Your task to perform on an android device: turn off notifications in google photos Image 0: 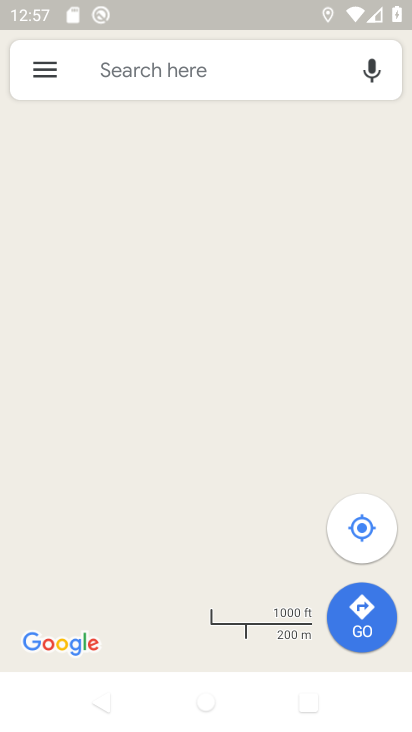
Step 0: press home button
Your task to perform on an android device: turn off notifications in google photos Image 1: 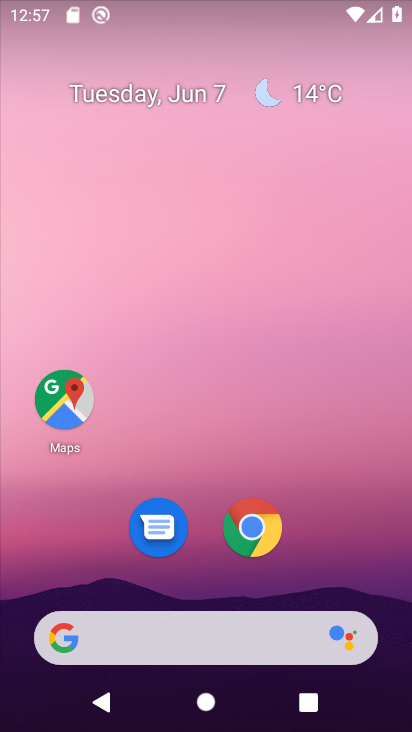
Step 1: drag from (307, 571) to (318, 13)
Your task to perform on an android device: turn off notifications in google photos Image 2: 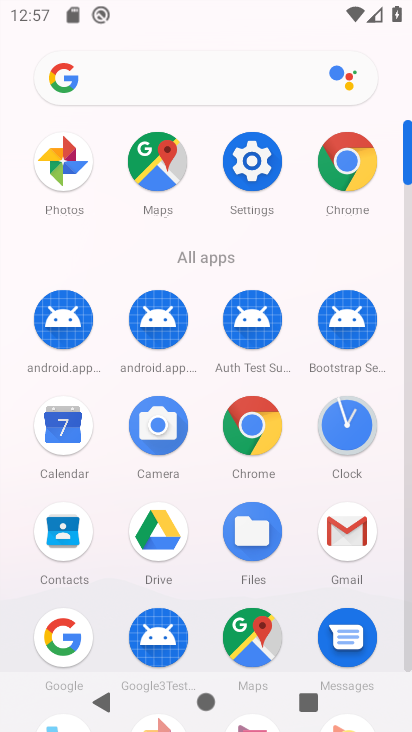
Step 2: click (64, 163)
Your task to perform on an android device: turn off notifications in google photos Image 3: 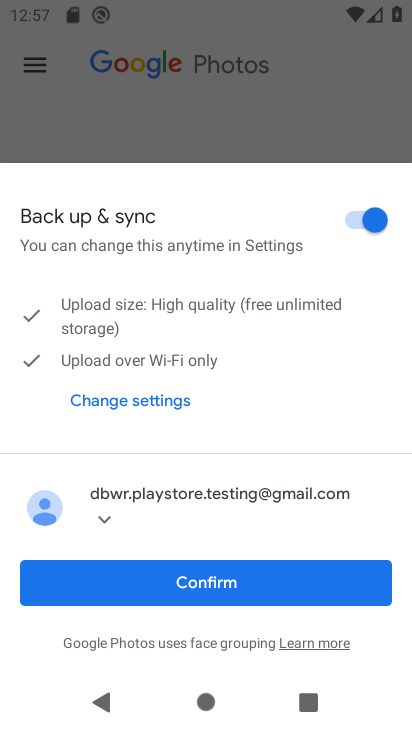
Step 3: click (272, 582)
Your task to perform on an android device: turn off notifications in google photos Image 4: 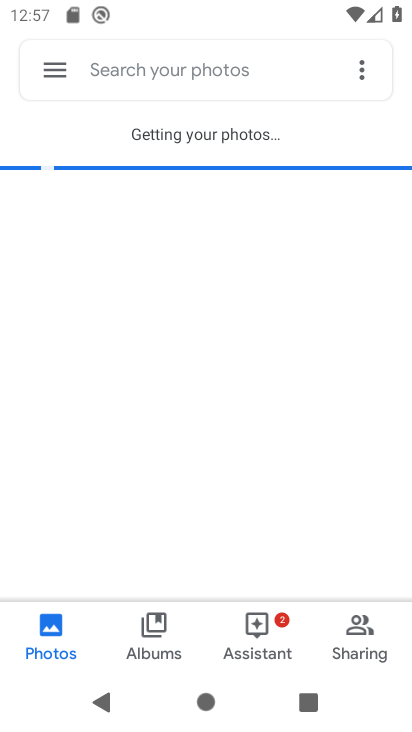
Step 4: click (42, 64)
Your task to perform on an android device: turn off notifications in google photos Image 5: 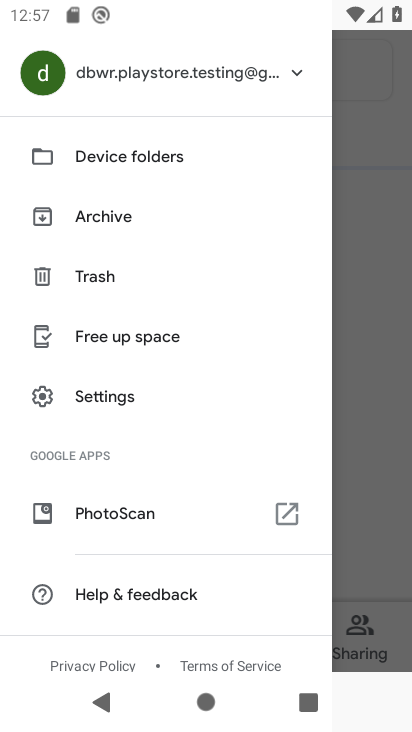
Step 5: click (93, 389)
Your task to perform on an android device: turn off notifications in google photos Image 6: 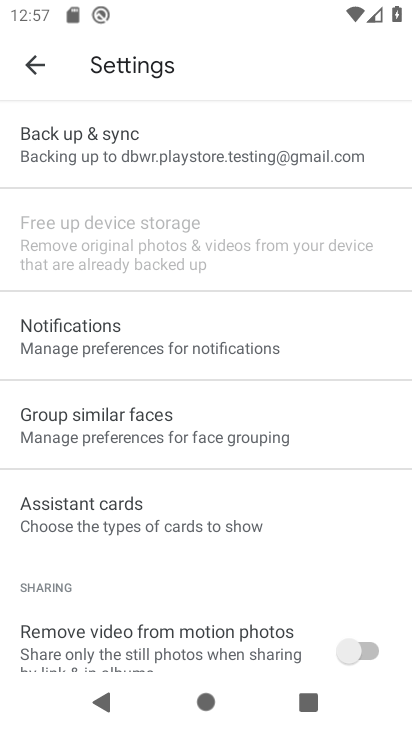
Step 6: click (116, 353)
Your task to perform on an android device: turn off notifications in google photos Image 7: 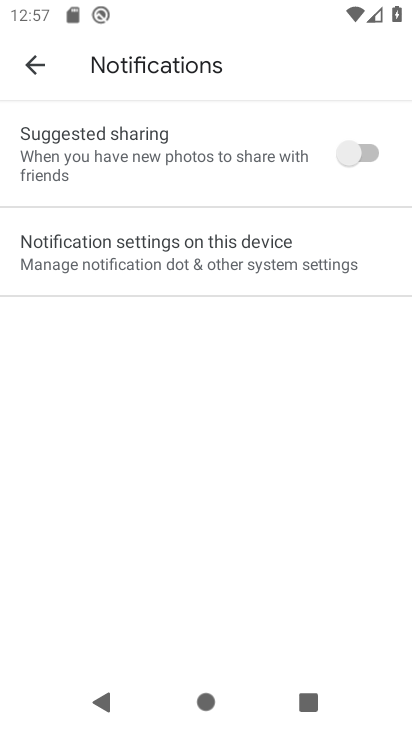
Step 7: click (233, 263)
Your task to perform on an android device: turn off notifications in google photos Image 8: 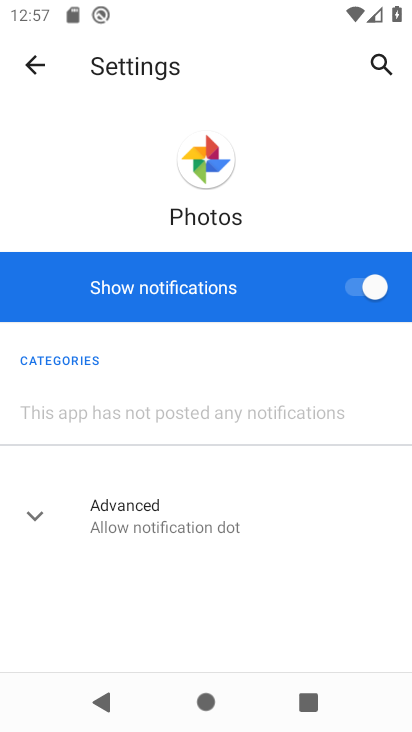
Step 8: click (392, 283)
Your task to perform on an android device: turn off notifications in google photos Image 9: 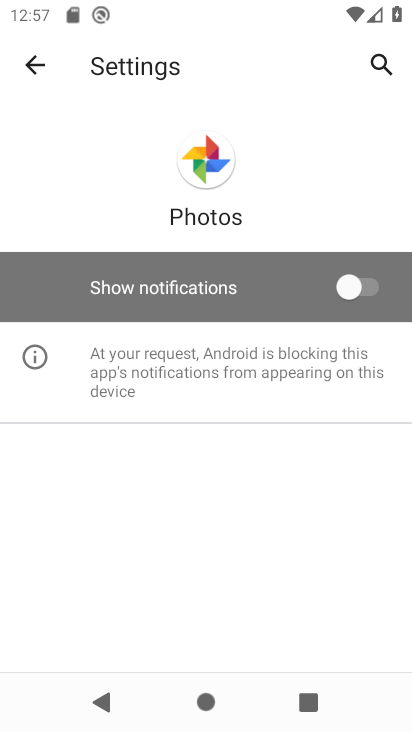
Step 9: task complete